Your task to perform on an android device: Go to Android settings Image 0: 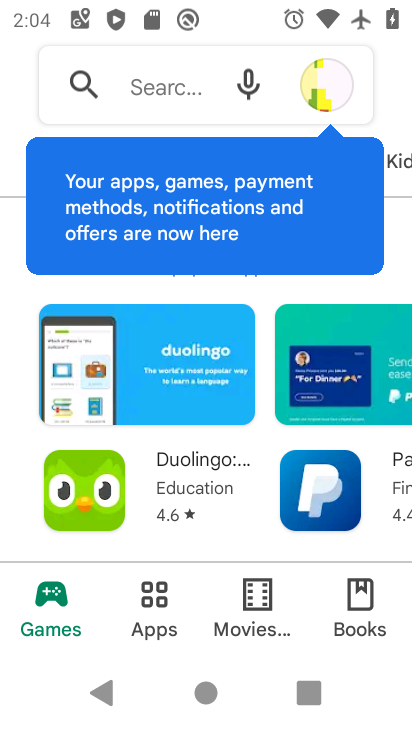
Step 0: press home button
Your task to perform on an android device: Go to Android settings Image 1: 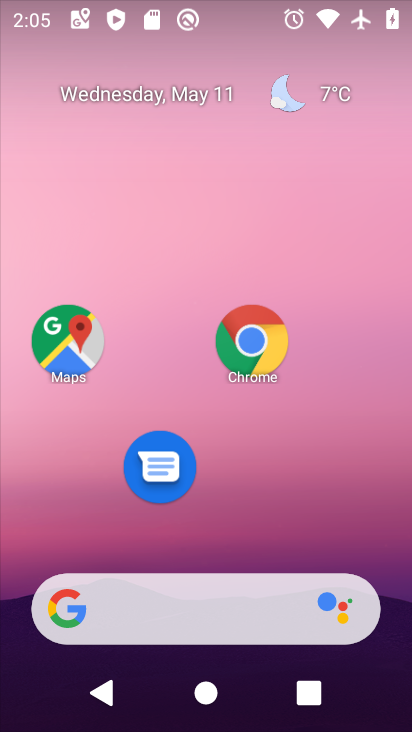
Step 1: drag from (148, 613) to (281, 155)
Your task to perform on an android device: Go to Android settings Image 2: 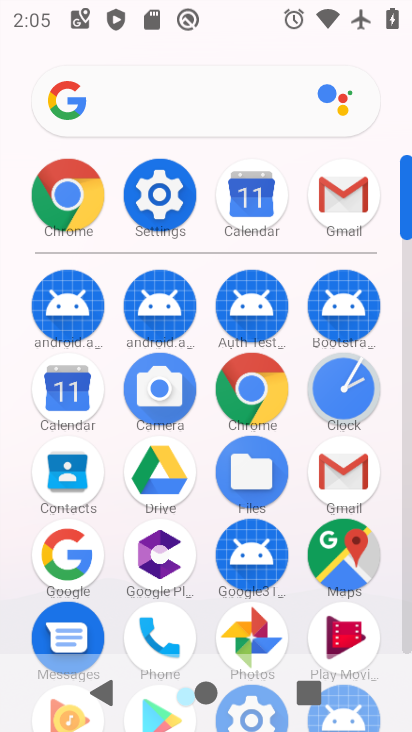
Step 2: click (173, 202)
Your task to perform on an android device: Go to Android settings Image 3: 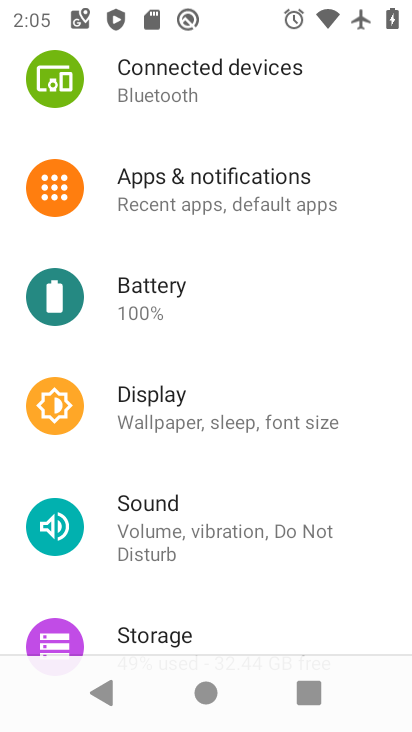
Step 3: task complete